Your task to perform on an android device: star an email in the gmail app Image 0: 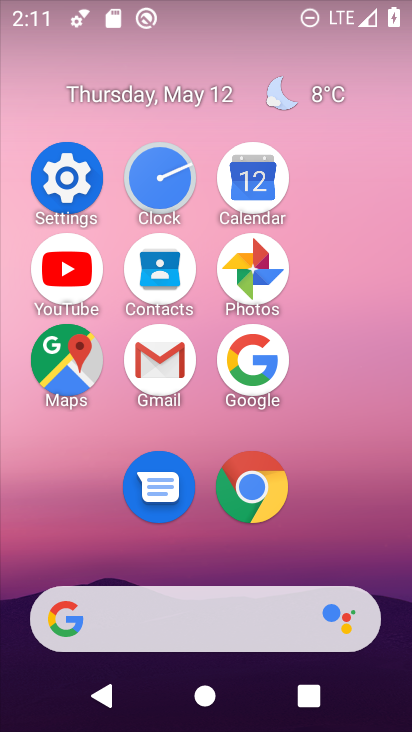
Step 0: click (163, 357)
Your task to perform on an android device: star an email in the gmail app Image 1: 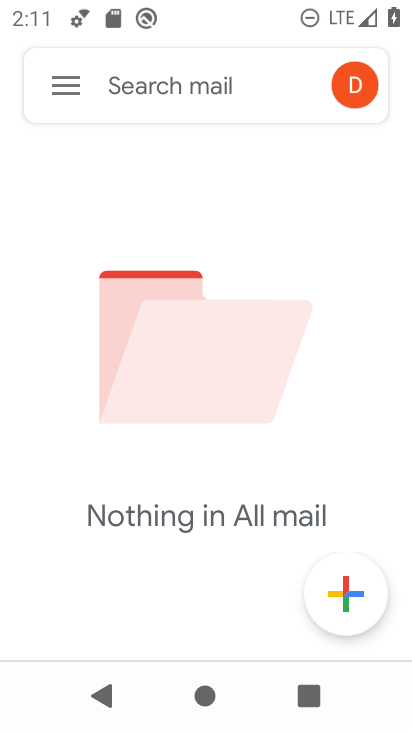
Step 1: click (88, 84)
Your task to perform on an android device: star an email in the gmail app Image 2: 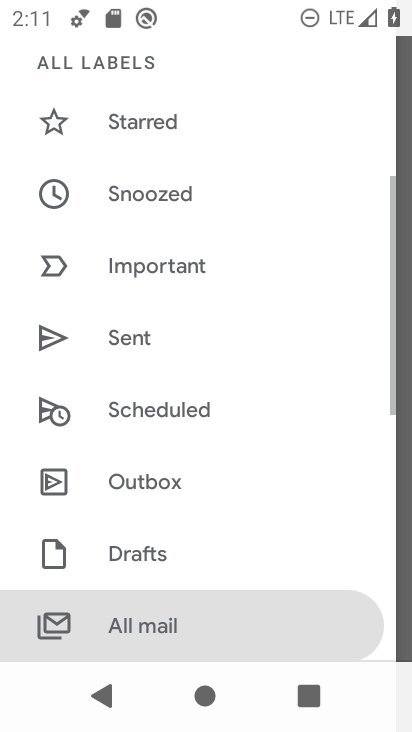
Step 2: click (186, 605)
Your task to perform on an android device: star an email in the gmail app Image 3: 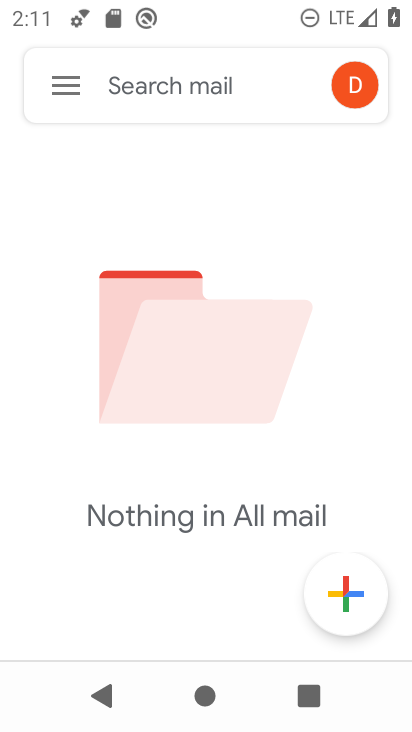
Step 3: task complete